Your task to perform on an android device: open sync settings in chrome Image 0: 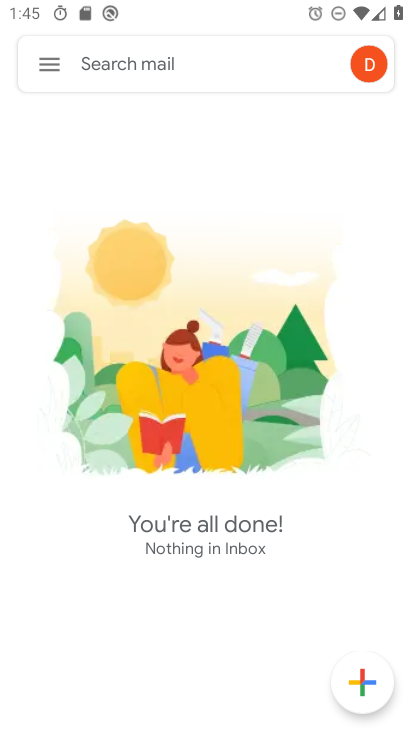
Step 0: press home button
Your task to perform on an android device: open sync settings in chrome Image 1: 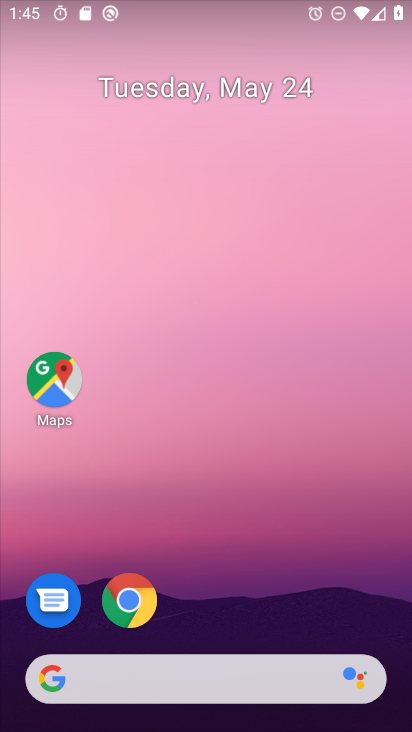
Step 1: click (135, 594)
Your task to perform on an android device: open sync settings in chrome Image 2: 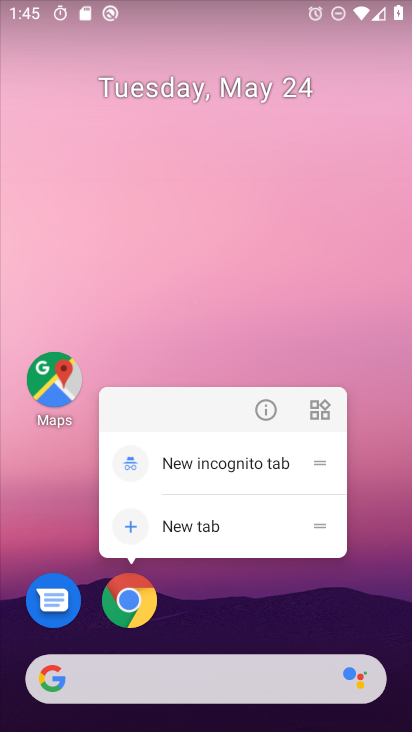
Step 2: click (136, 596)
Your task to perform on an android device: open sync settings in chrome Image 3: 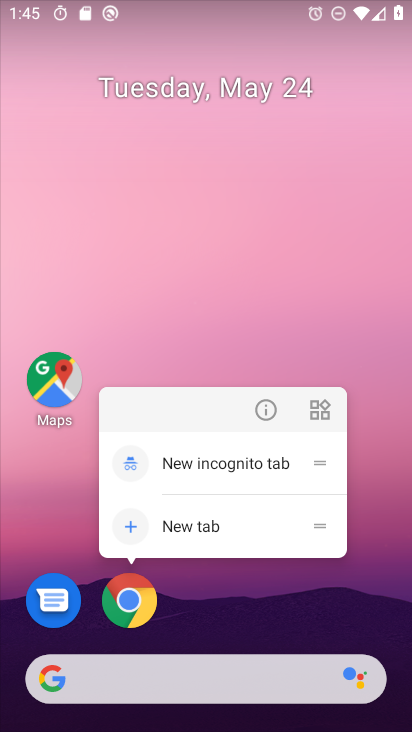
Step 3: click (132, 604)
Your task to perform on an android device: open sync settings in chrome Image 4: 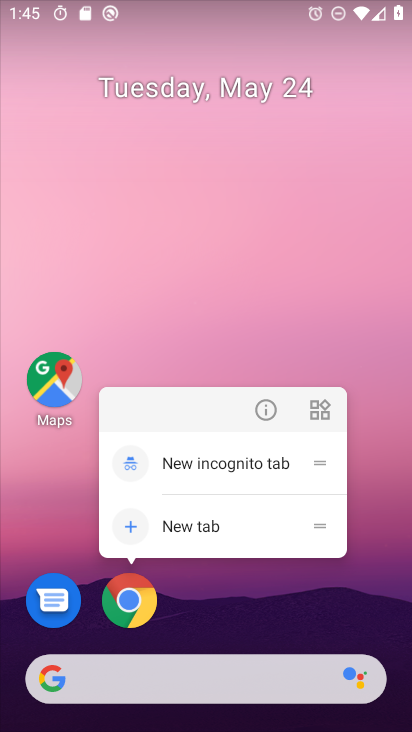
Step 4: click (133, 602)
Your task to perform on an android device: open sync settings in chrome Image 5: 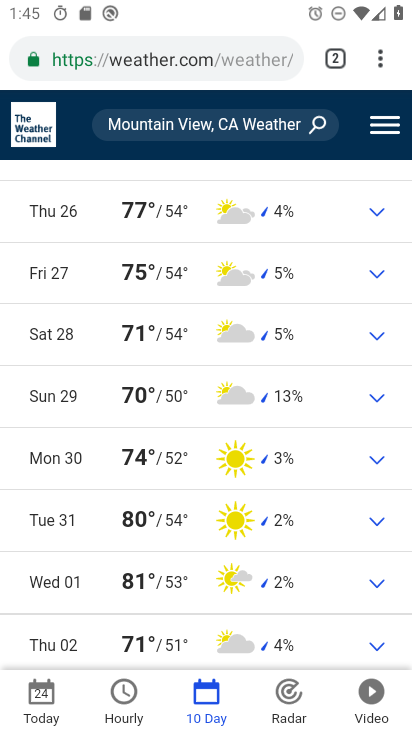
Step 5: click (380, 53)
Your task to perform on an android device: open sync settings in chrome Image 6: 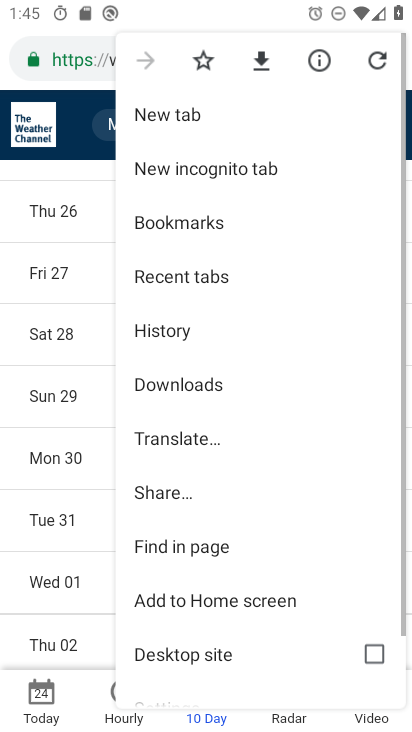
Step 6: drag from (276, 571) to (311, 166)
Your task to perform on an android device: open sync settings in chrome Image 7: 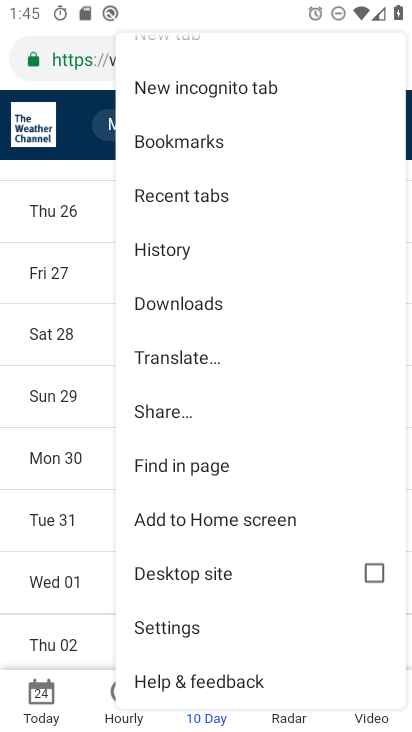
Step 7: click (183, 644)
Your task to perform on an android device: open sync settings in chrome Image 8: 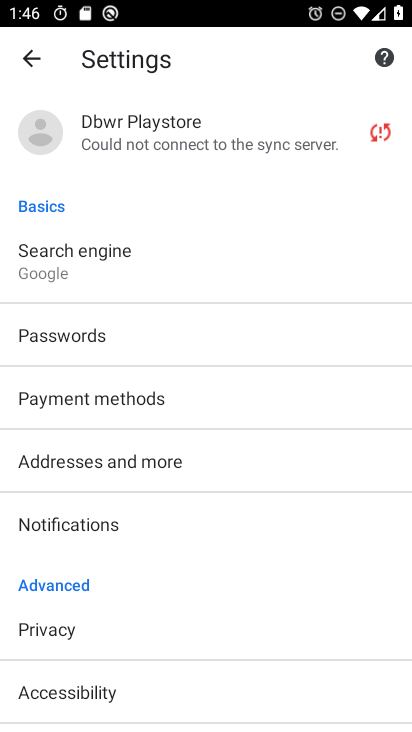
Step 8: click (128, 143)
Your task to perform on an android device: open sync settings in chrome Image 9: 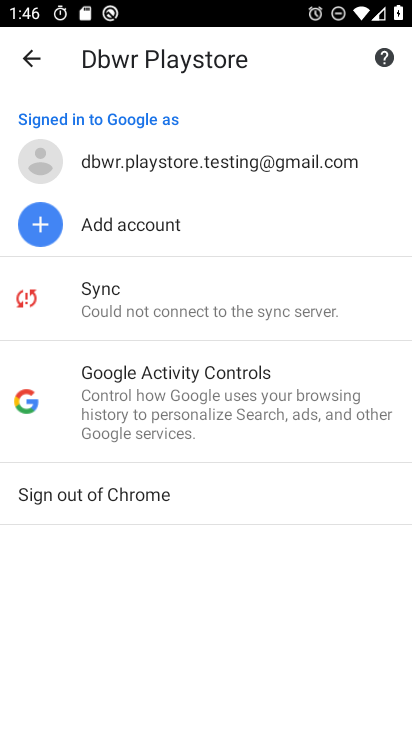
Step 9: click (159, 297)
Your task to perform on an android device: open sync settings in chrome Image 10: 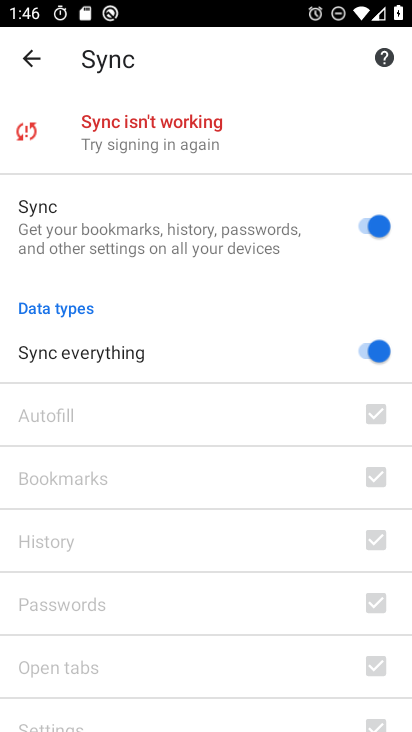
Step 10: task complete